Your task to perform on an android device: turn vacation reply on in the gmail app Image 0: 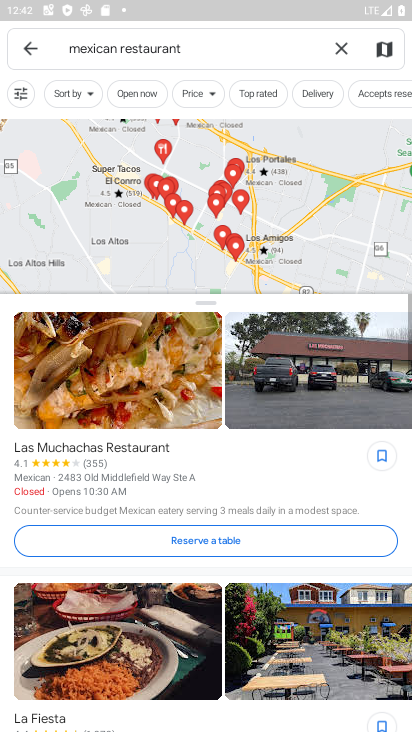
Step 0: press home button
Your task to perform on an android device: turn vacation reply on in the gmail app Image 1: 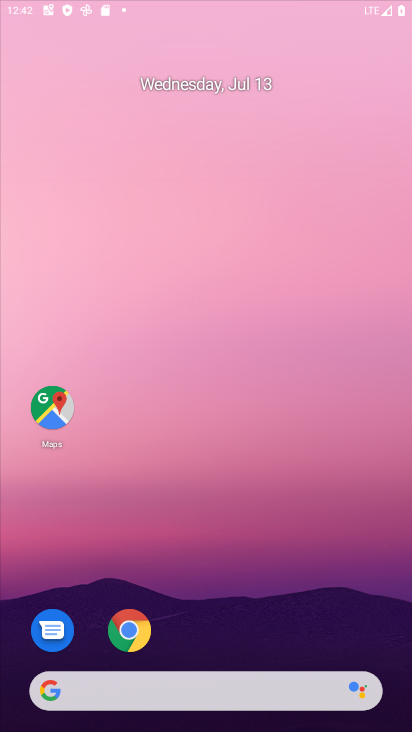
Step 1: drag from (388, 714) to (273, 3)
Your task to perform on an android device: turn vacation reply on in the gmail app Image 2: 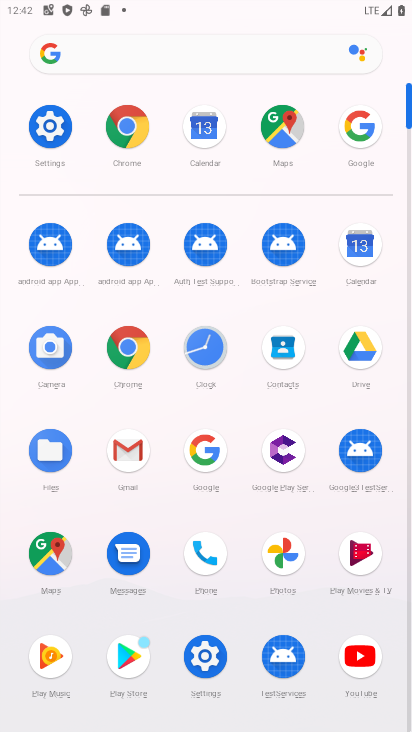
Step 2: click (133, 445)
Your task to perform on an android device: turn vacation reply on in the gmail app Image 3: 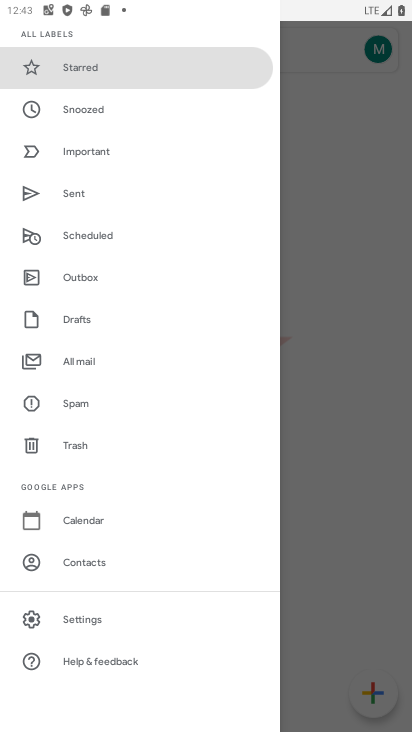
Step 3: click (61, 617)
Your task to perform on an android device: turn vacation reply on in the gmail app Image 4: 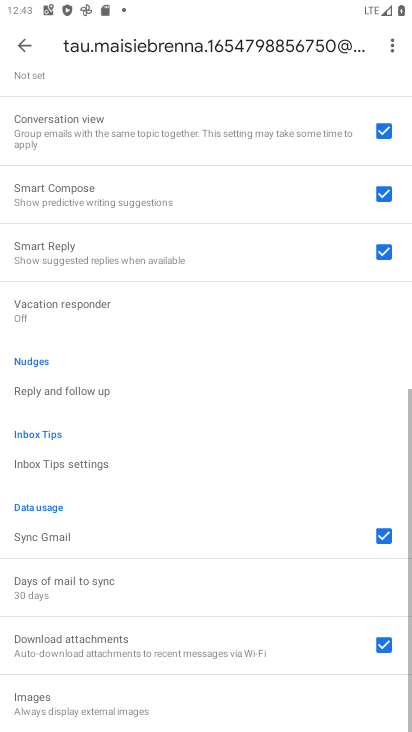
Step 4: drag from (118, 636) to (190, 65)
Your task to perform on an android device: turn vacation reply on in the gmail app Image 5: 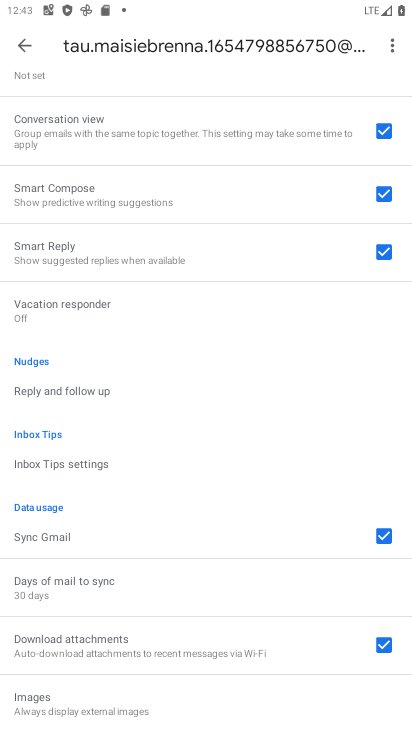
Step 5: drag from (174, 186) to (169, 565)
Your task to perform on an android device: turn vacation reply on in the gmail app Image 6: 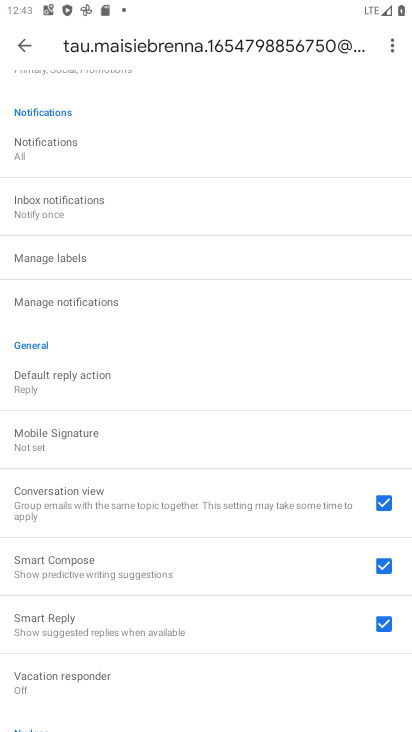
Step 6: drag from (168, 566) to (224, 246)
Your task to perform on an android device: turn vacation reply on in the gmail app Image 7: 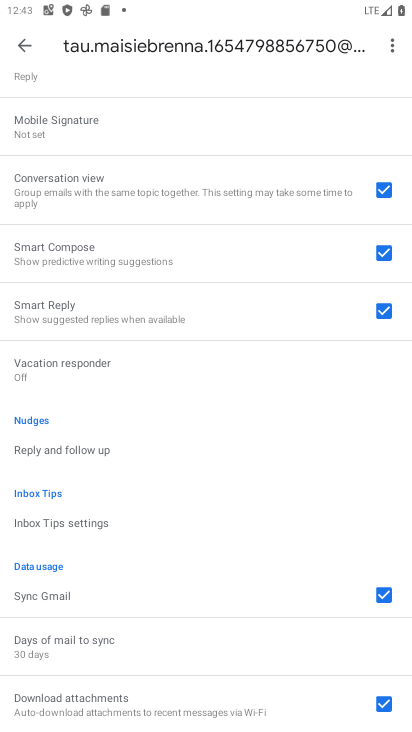
Step 7: click (100, 363)
Your task to perform on an android device: turn vacation reply on in the gmail app Image 8: 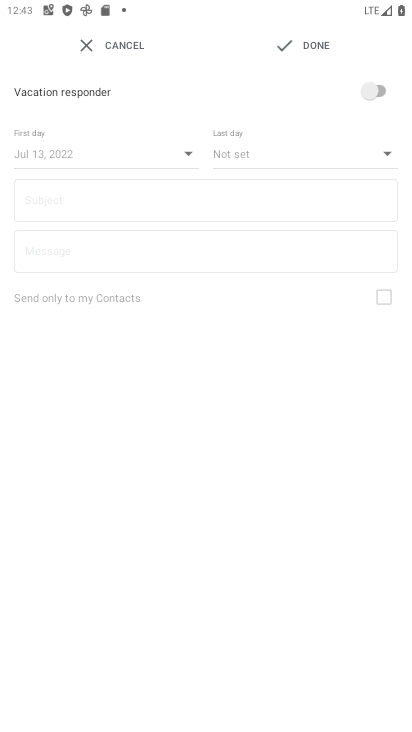
Step 8: click (372, 86)
Your task to perform on an android device: turn vacation reply on in the gmail app Image 9: 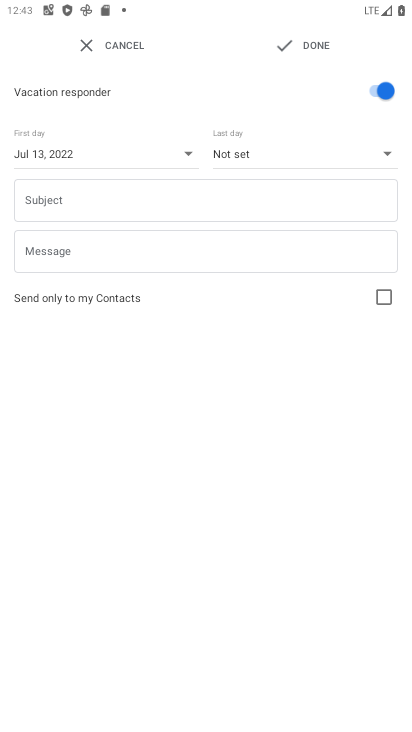
Step 9: task complete